Your task to perform on an android device: Open the phone app and click the voicemail tab. Image 0: 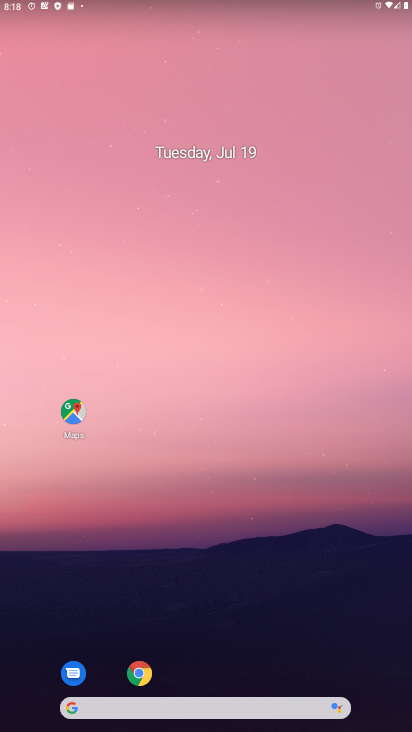
Step 0: drag from (345, 684) to (365, 108)
Your task to perform on an android device: Open the phone app and click the voicemail tab. Image 1: 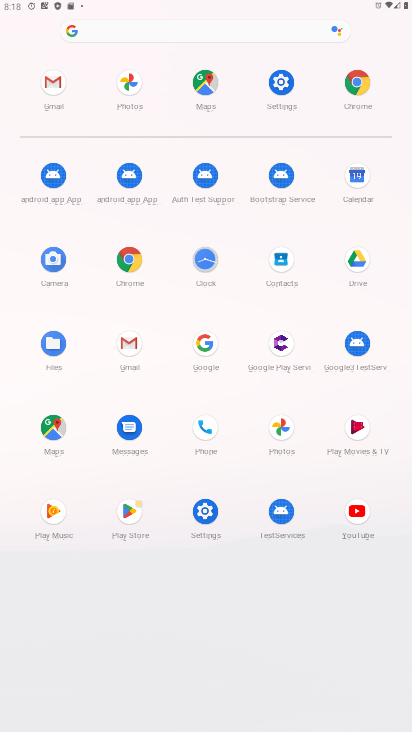
Step 1: click (207, 432)
Your task to perform on an android device: Open the phone app and click the voicemail tab. Image 2: 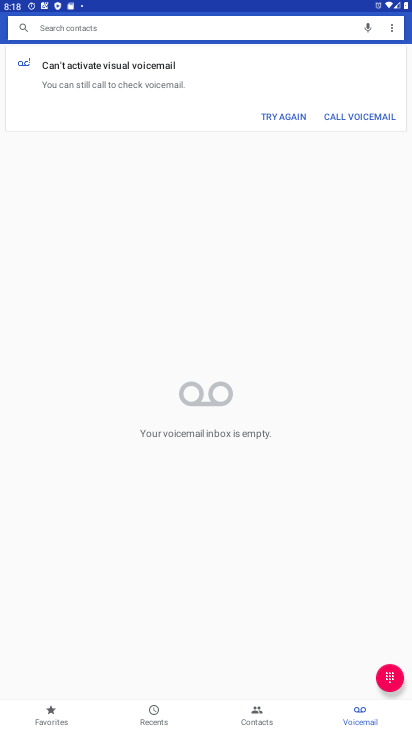
Step 2: task complete